Your task to perform on an android device: turn on translation in the chrome app Image 0: 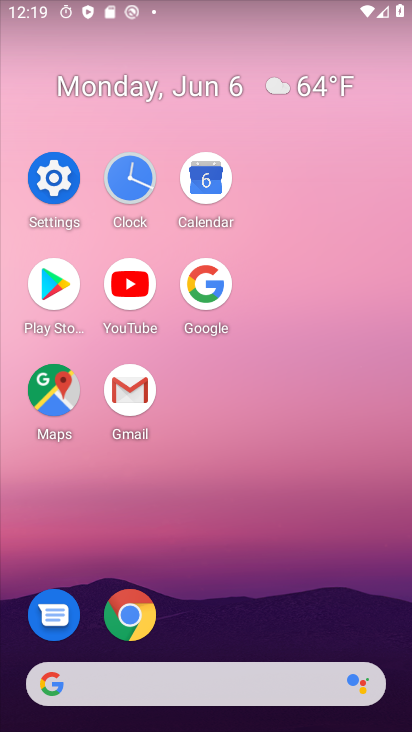
Step 0: click (141, 628)
Your task to perform on an android device: turn on translation in the chrome app Image 1: 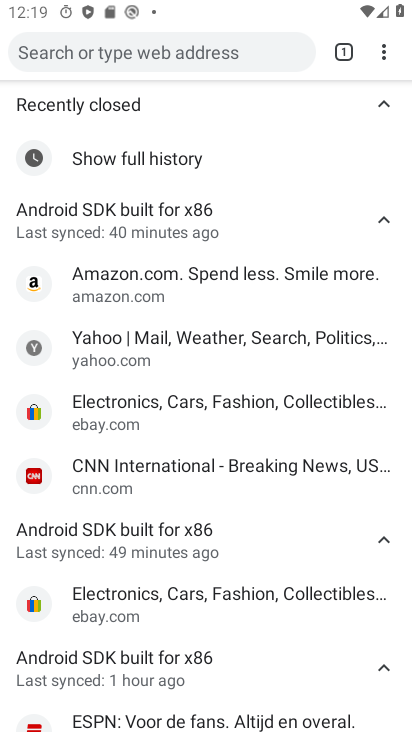
Step 1: click (384, 46)
Your task to perform on an android device: turn on translation in the chrome app Image 2: 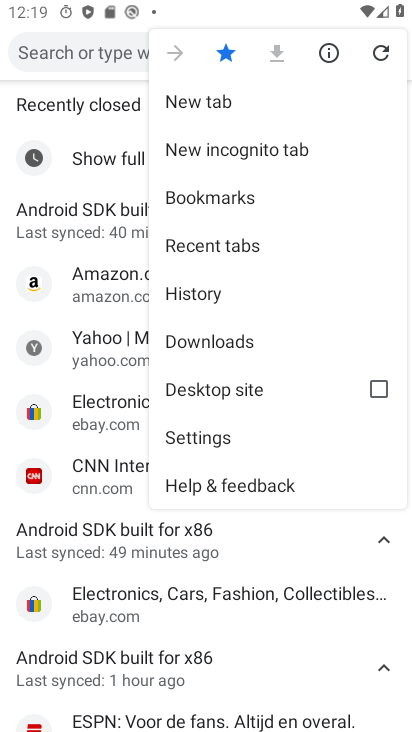
Step 2: click (251, 436)
Your task to perform on an android device: turn on translation in the chrome app Image 3: 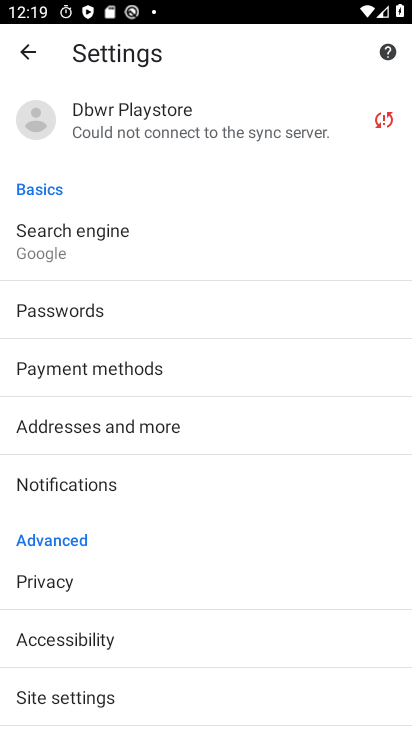
Step 3: drag from (223, 650) to (77, 209)
Your task to perform on an android device: turn on translation in the chrome app Image 4: 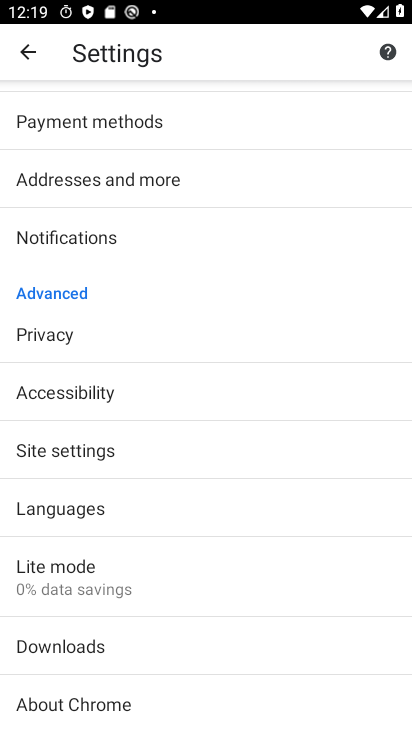
Step 4: click (181, 511)
Your task to perform on an android device: turn on translation in the chrome app Image 5: 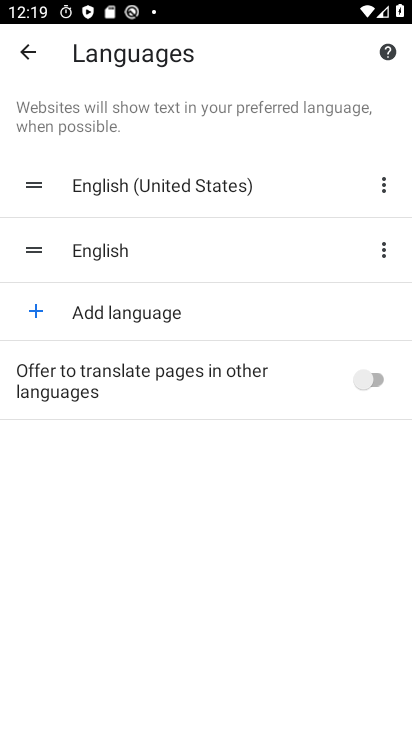
Step 5: click (375, 381)
Your task to perform on an android device: turn on translation in the chrome app Image 6: 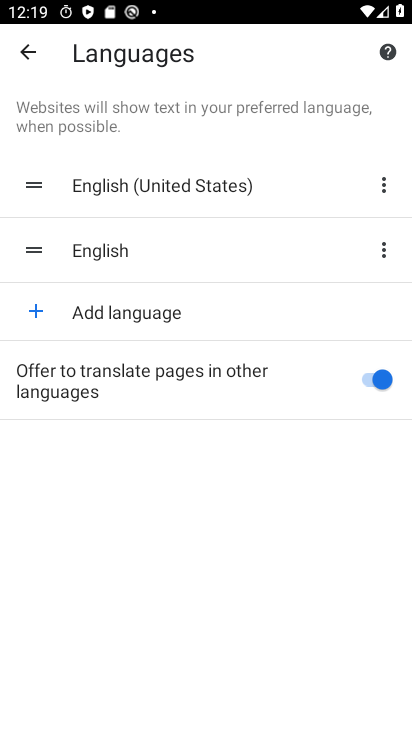
Step 6: task complete